Your task to perform on an android device: allow cookies in the chrome app Image 0: 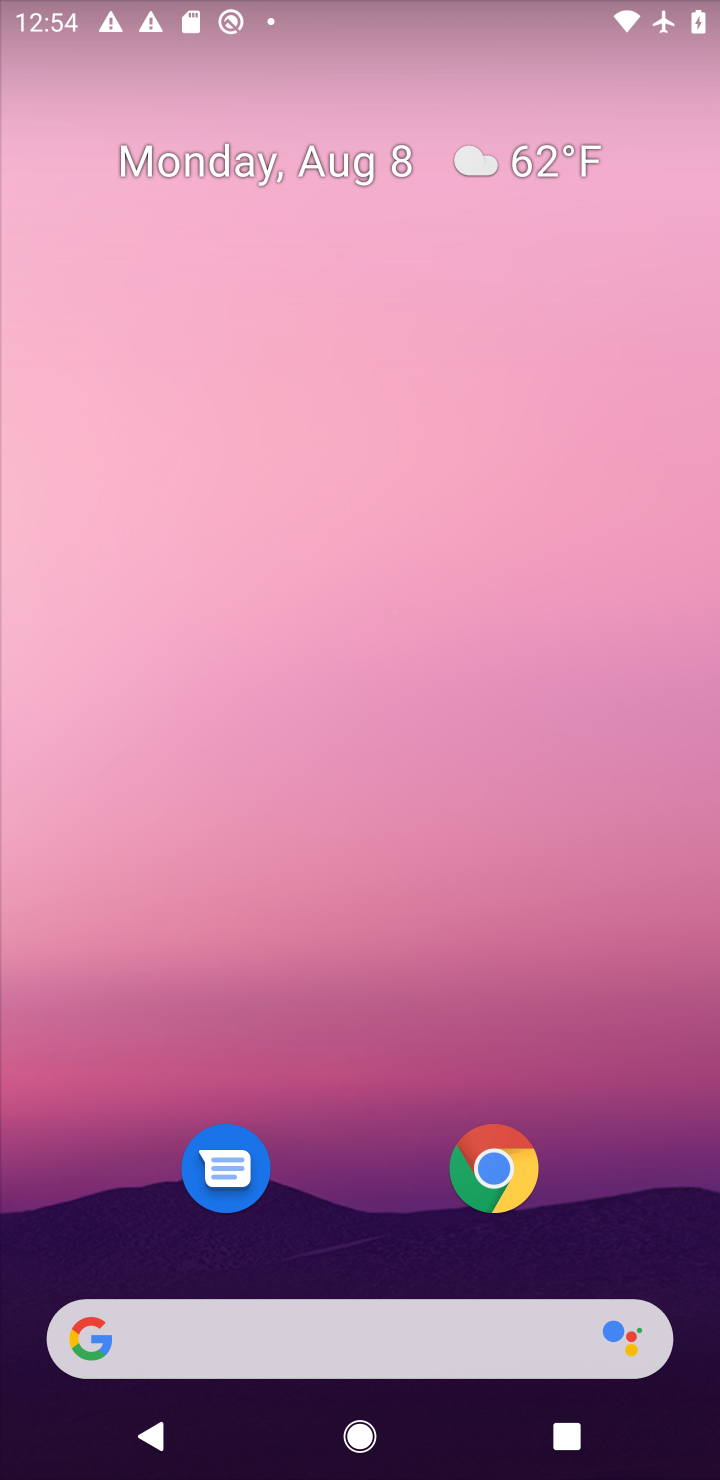
Step 0: click (488, 1158)
Your task to perform on an android device: allow cookies in the chrome app Image 1: 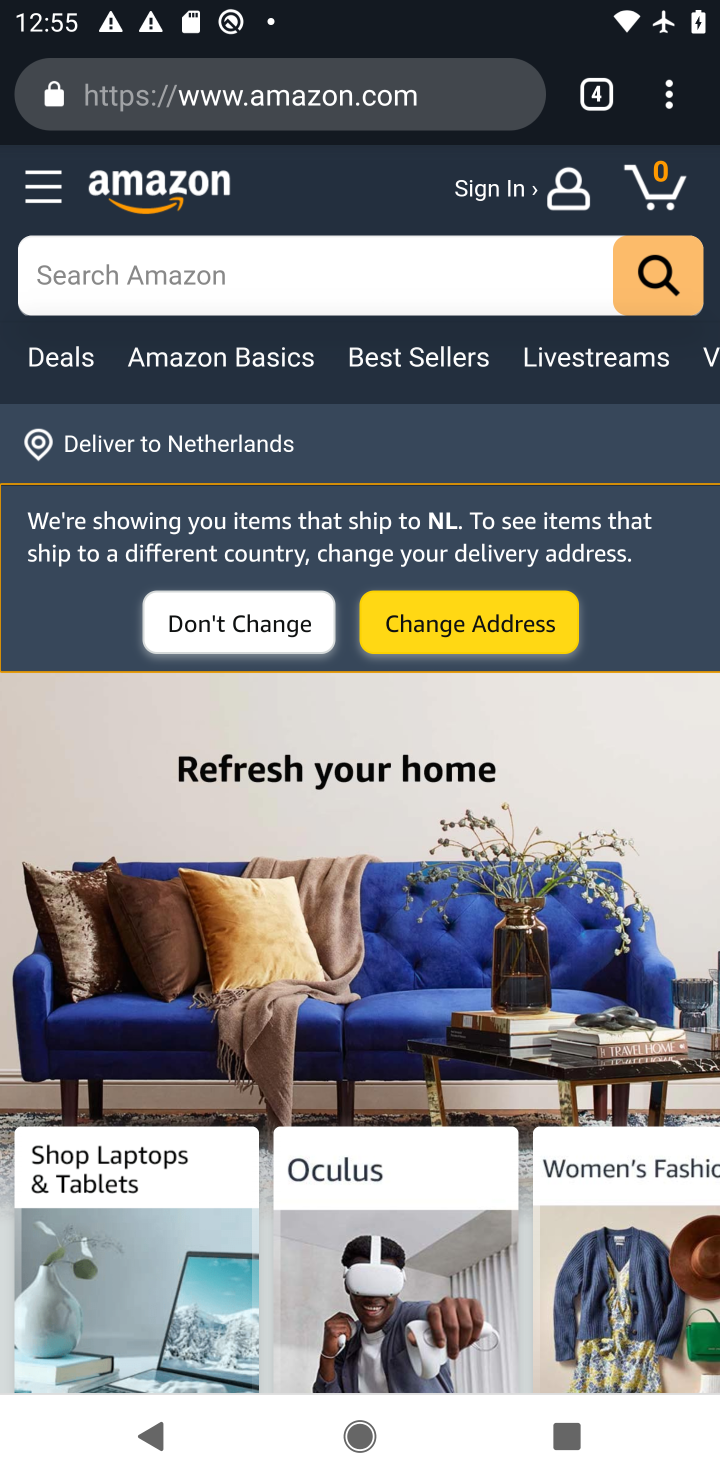
Step 1: click (666, 95)
Your task to perform on an android device: allow cookies in the chrome app Image 2: 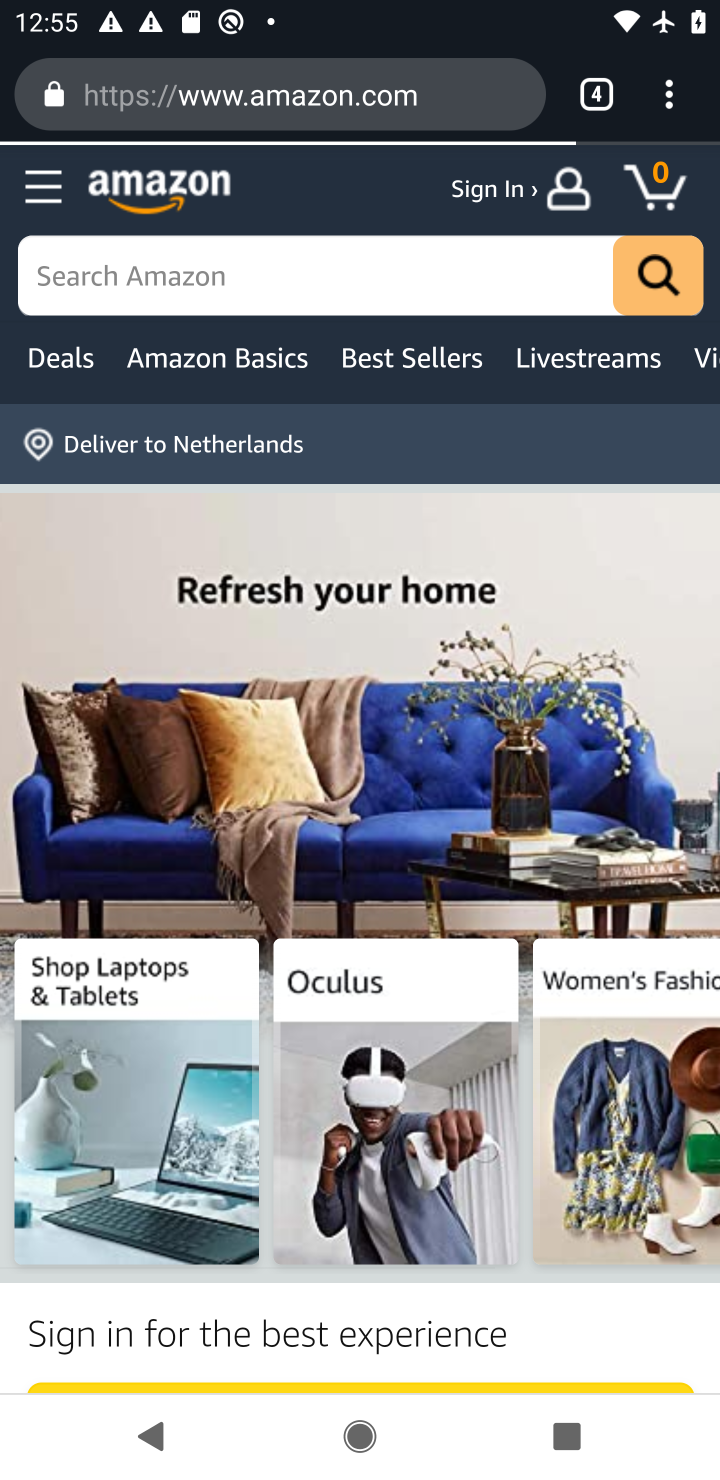
Step 2: click (679, 114)
Your task to perform on an android device: allow cookies in the chrome app Image 3: 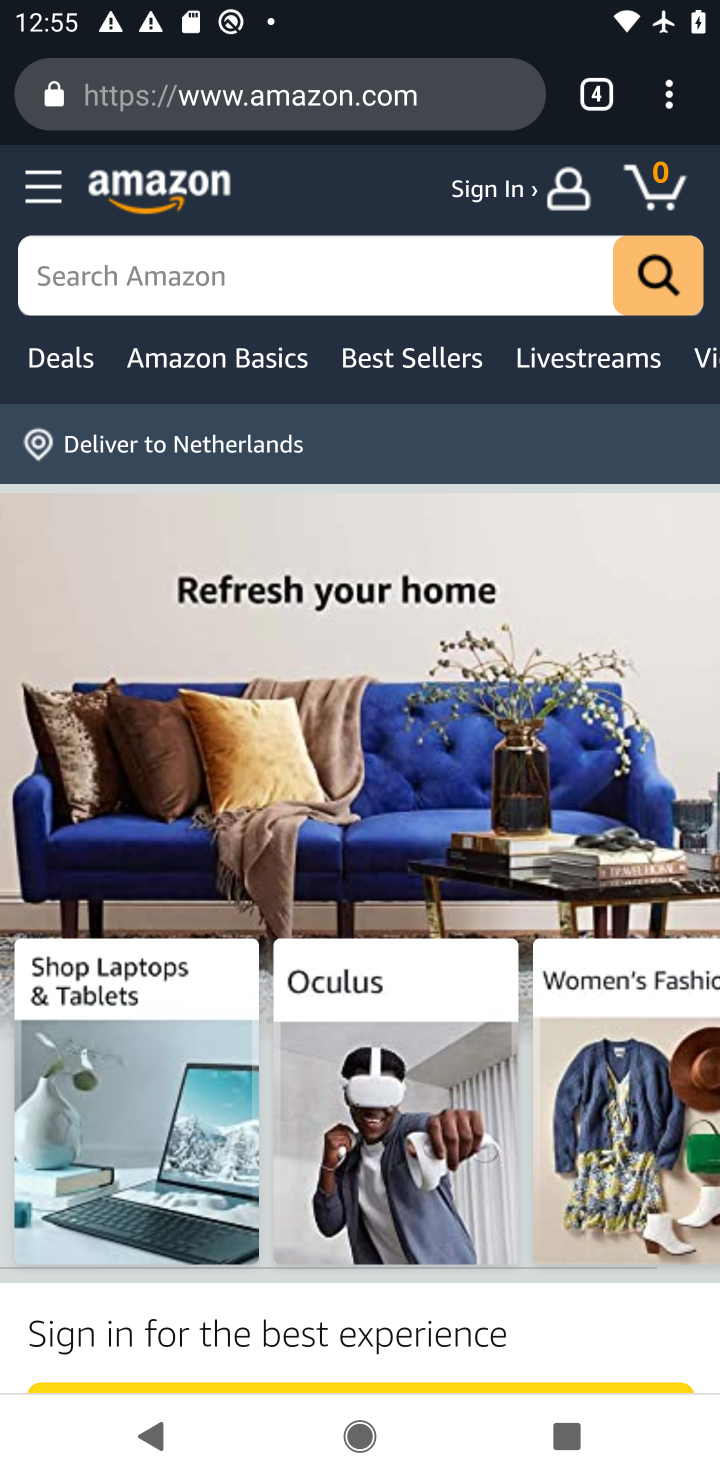
Step 3: task complete